Your task to perform on an android device: toggle wifi Image 0: 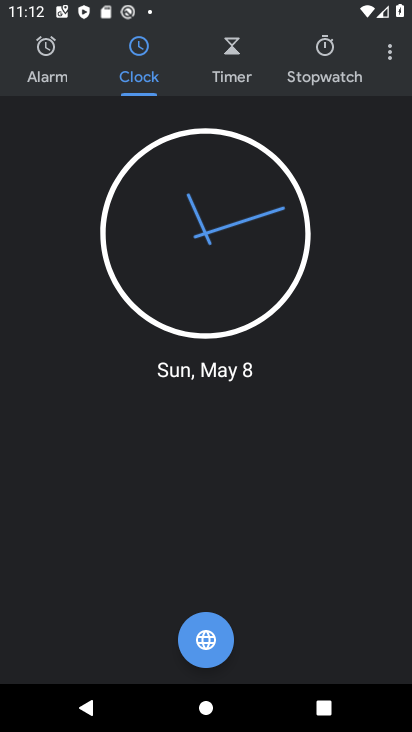
Step 0: press home button
Your task to perform on an android device: toggle wifi Image 1: 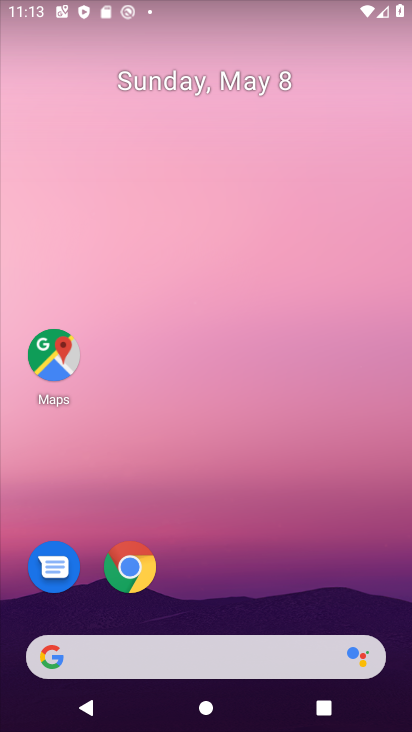
Step 1: drag from (243, 8) to (240, 512)
Your task to perform on an android device: toggle wifi Image 2: 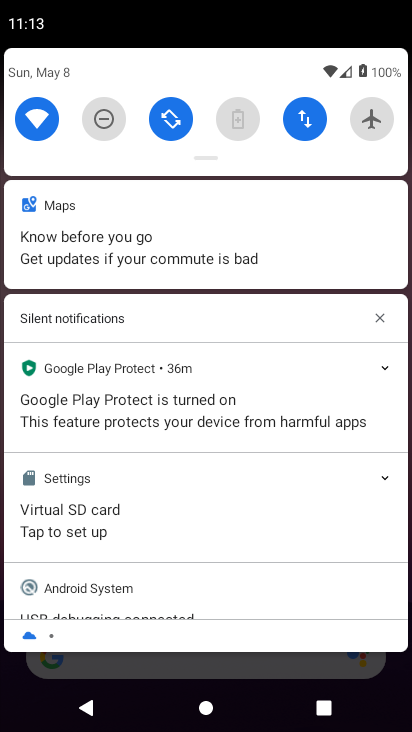
Step 2: click (35, 117)
Your task to perform on an android device: toggle wifi Image 3: 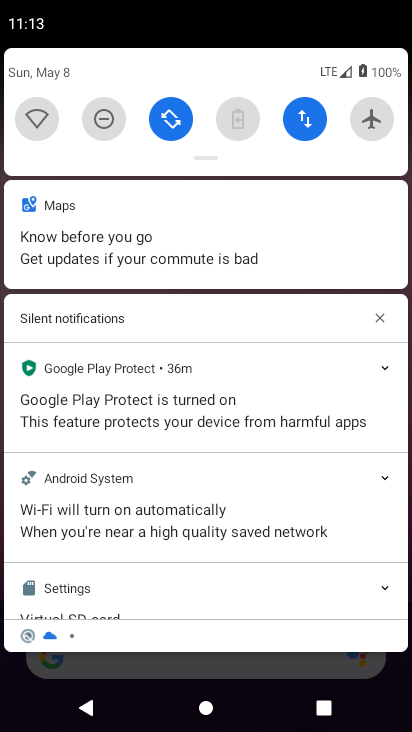
Step 3: task complete